Your task to perform on an android device: Open Google Chrome and click the shortcut for Amazon.com Image 0: 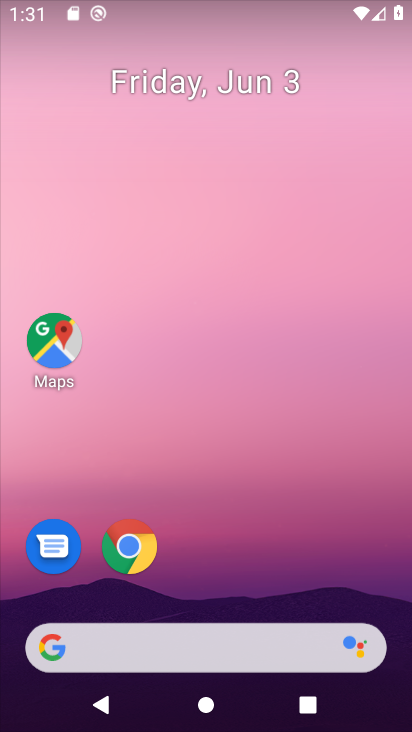
Step 0: click (142, 552)
Your task to perform on an android device: Open Google Chrome and click the shortcut for Amazon.com Image 1: 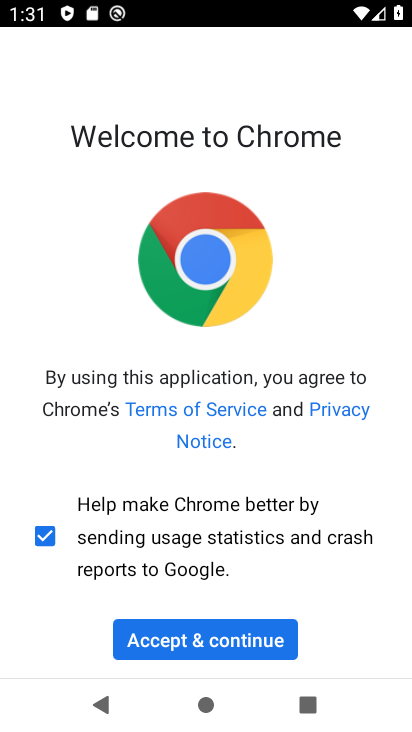
Step 1: click (234, 638)
Your task to perform on an android device: Open Google Chrome and click the shortcut for Amazon.com Image 2: 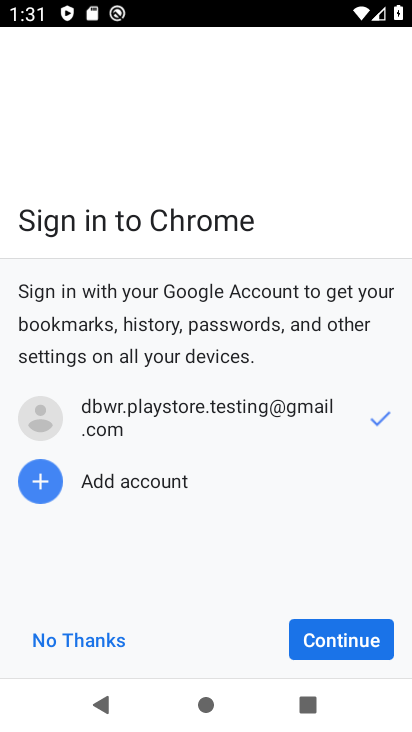
Step 2: click (317, 639)
Your task to perform on an android device: Open Google Chrome and click the shortcut for Amazon.com Image 3: 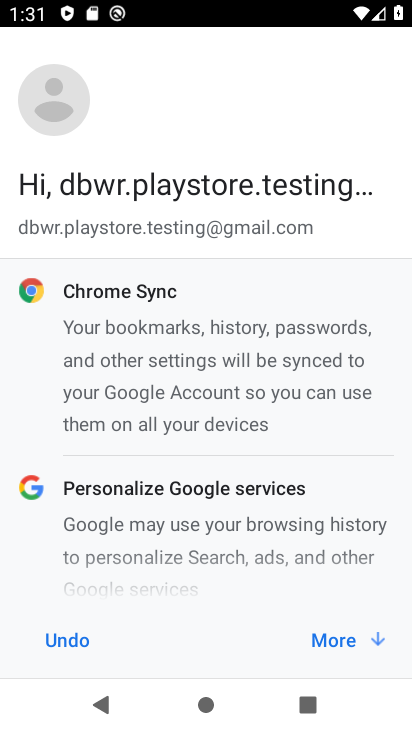
Step 3: click (311, 637)
Your task to perform on an android device: Open Google Chrome and click the shortcut for Amazon.com Image 4: 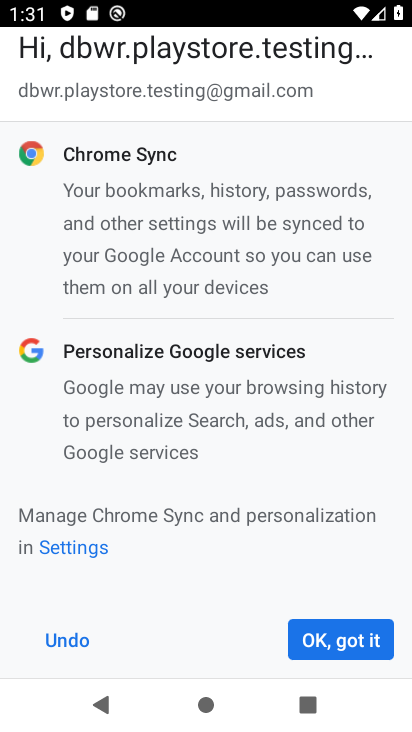
Step 4: click (311, 637)
Your task to perform on an android device: Open Google Chrome and click the shortcut for Amazon.com Image 5: 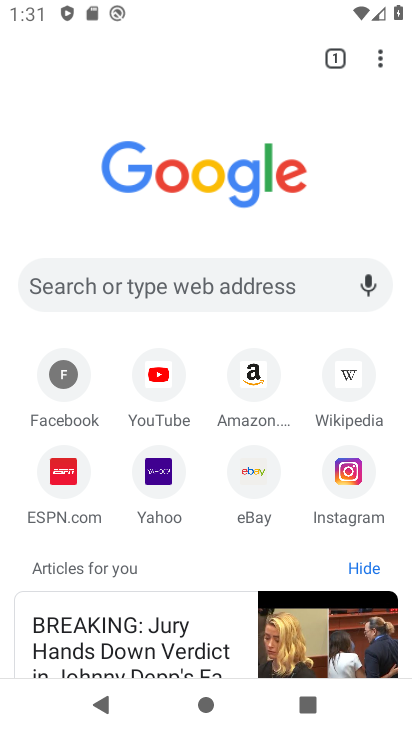
Step 5: click (263, 396)
Your task to perform on an android device: Open Google Chrome and click the shortcut for Amazon.com Image 6: 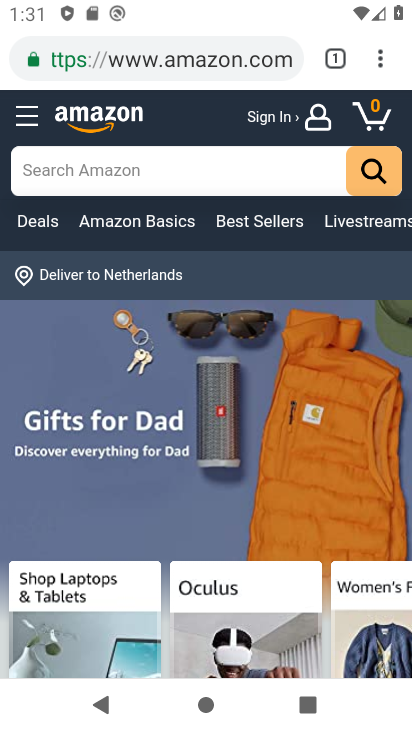
Step 6: task complete